Your task to perform on an android device: Show the shopping cart on ebay. Search for "razer nari" on ebay, select the first entry, and add it to the cart. Image 0: 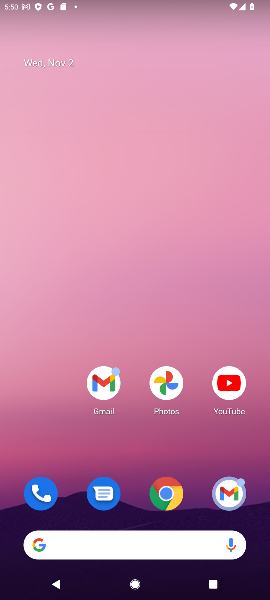
Step 0: drag from (135, 489) to (168, 272)
Your task to perform on an android device: Show the shopping cart on ebay. Search for "razer nari" on ebay, select the first entry, and add it to the cart. Image 1: 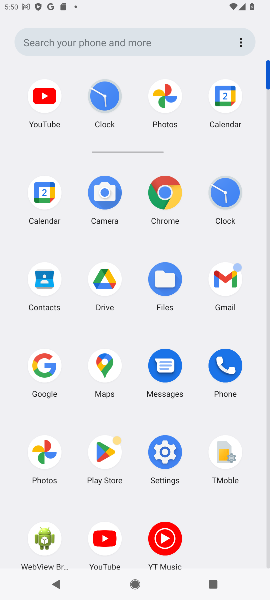
Step 1: click (36, 369)
Your task to perform on an android device: Show the shopping cart on ebay. Search for "razer nari" on ebay, select the first entry, and add it to the cart. Image 2: 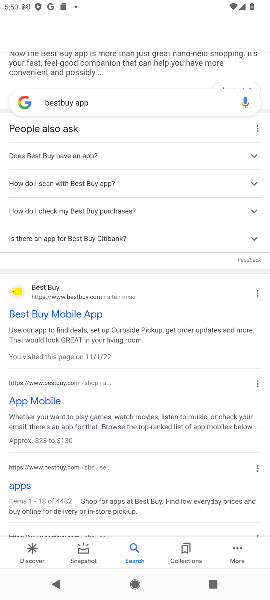
Step 2: click (112, 97)
Your task to perform on an android device: Show the shopping cart on ebay. Search for "razer nari" on ebay, select the first entry, and add it to the cart. Image 3: 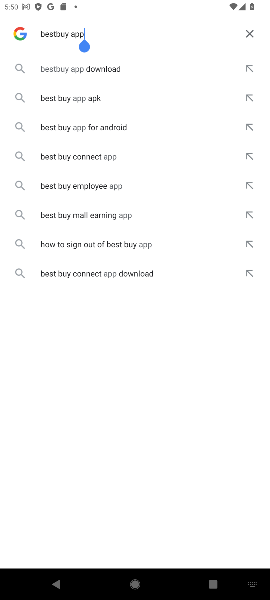
Step 3: click (249, 37)
Your task to perform on an android device: Show the shopping cart on ebay. Search for "razer nari" on ebay, select the first entry, and add it to the cart. Image 4: 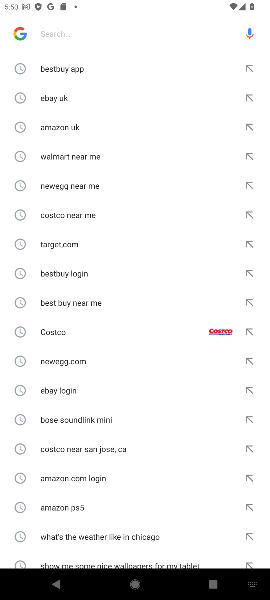
Step 4: click (57, 99)
Your task to perform on an android device: Show the shopping cart on ebay. Search for "razer nari" on ebay, select the first entry, and add it to the cart. Image 5: 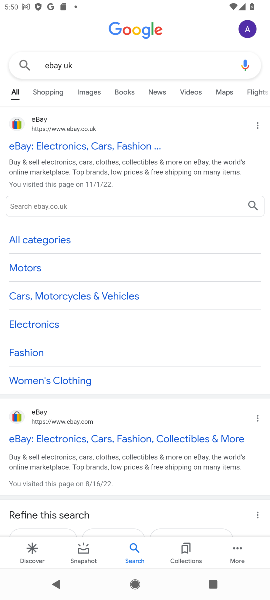
Step 5: click (26, 141)
Your task to perform on an android device: Show the shopping cart on ebay. Search for "razer nari" on ebay, select the first entry, and add it to the cart. Image 6: 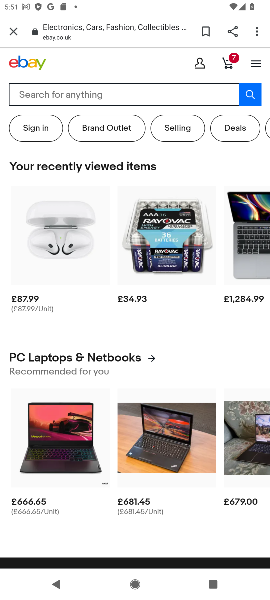
Step 6: click (90, 91)
Your task to perform on an android device: Show the shopping cart on ebay. Search for "razer nari" on ebay, select the first entry, and add it to the cart. Image 7: 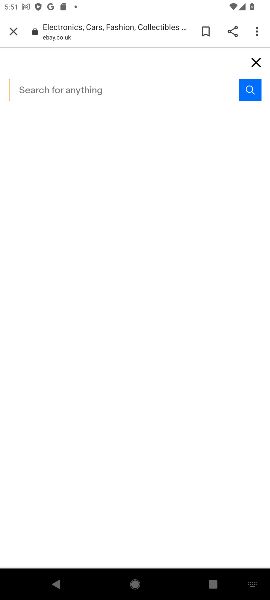
Step 7: click (74, 82)
Your task to perform on an android device: Show the shopping cart on ebay. Search for "razer nari" on ebay, select the first entry, and add it to the cart. Image 8: 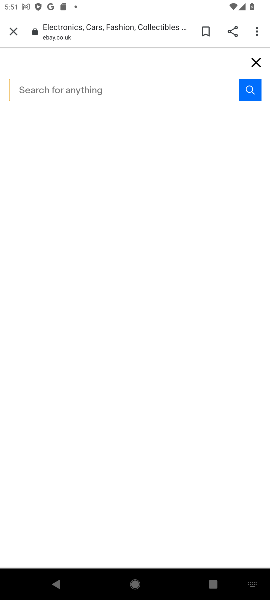
Step 8: type "razer nari "
Your task to perform on an android device: Show the shopping cart on ebay. Search for "razer nari" on ebay, select the first entry, and add it to the cart. Image 9: 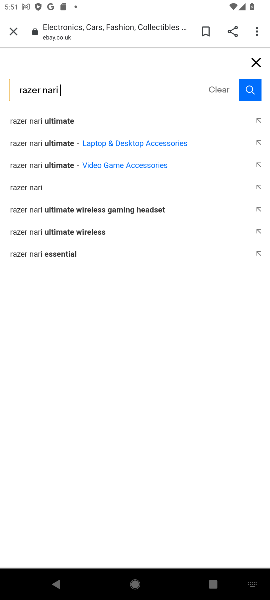
Step 9: click (34, 136)
Your task to perform on an android device: Show the shopping cart on ebay. Search for "razer nari" on ebay, select the first entry, and add it to the cart. Image 10: 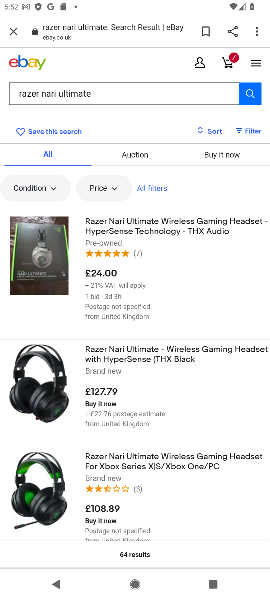
Step 10: click (105, 224)
Your task to perform on an android device: Show the shopping cart on ebay. Search for "razer nari" on ebay, select the first entry, and add it to the cart. Image 11: 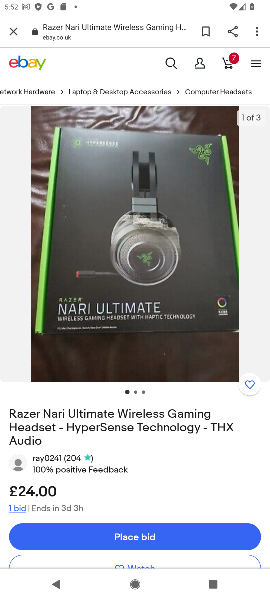
Step 11: drag from (137, 496) to (146, 395)
Your task to perform on an android device: Show the shopping cart on ebay. Search for "razer nari" on ebay, select the first entry, and add it to the cart. Image 12: 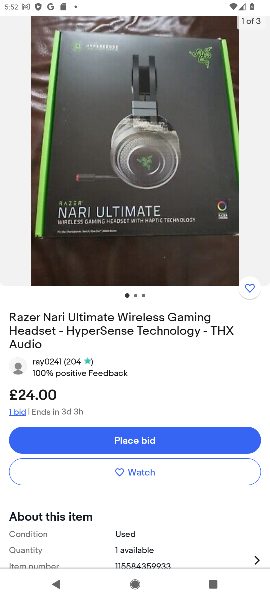
Step 12: press back button
Your task to perform on an android device: Show the shopping cart on ebay. Search for "razer nari" on ebay, select the first entry, and add it to the cart. Image 13: 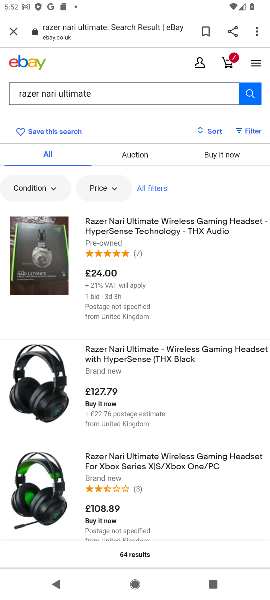
Step 13: click (101, 373)
Your task to perform on an android device: Show the shopping cart on ebay. Search for "razer nari" on ebay, select the first entry, and add it to the cart. Image 14: 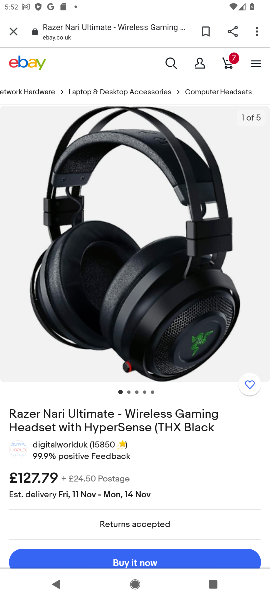
Step 14: drag from (102, 399) to (147, 204)
Your task to perform on an android device: Show the shopping cart on ebay. Search for "razer nari" on ebay, select the first entry, and add it to the cart. Image 15: 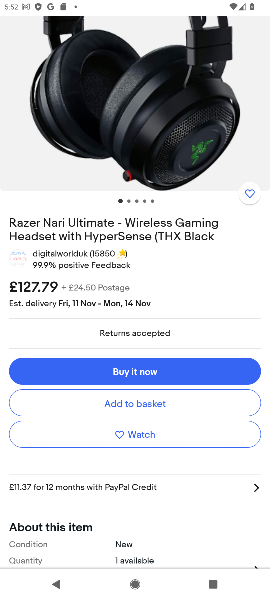
Step 15: click (136, 394)
Your task to perform on an android device: Show the shopping cart on ebay. Search for "razer nari" on ebay, select the first entry, and add it to the cart. Image 16: 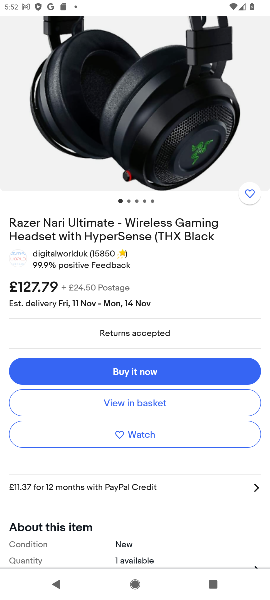
Step 16: click (153, 400)
Your task to perform on an android device: Show the shopping cart on ebay. Search for "razer nari" on ebay, select the first entry, and add it to the cart. Image 17: 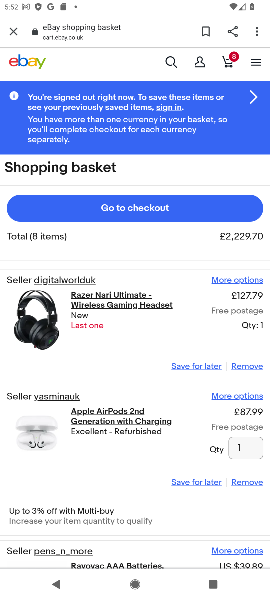
Step 17: task complete